Your task to perform on an android device: show emergency info Image 0: 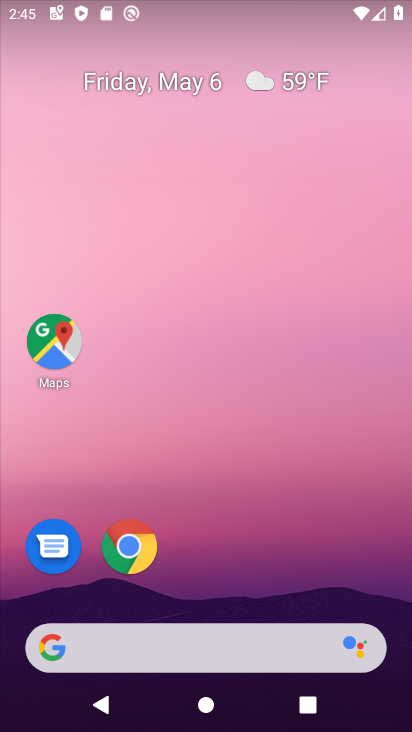
Step 0: drag from (272, 572) to (271, 166)
Your task to perform on an android device: show emergency info Image 1: 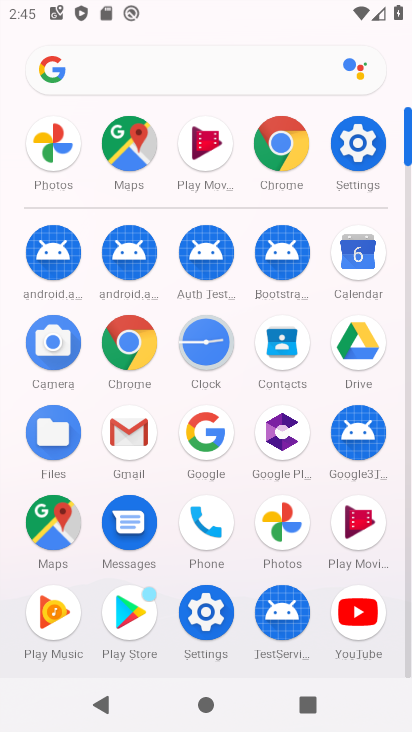
Step 1: click (359, 141)
Your task to perform on an android device: show emergency info Image 2: 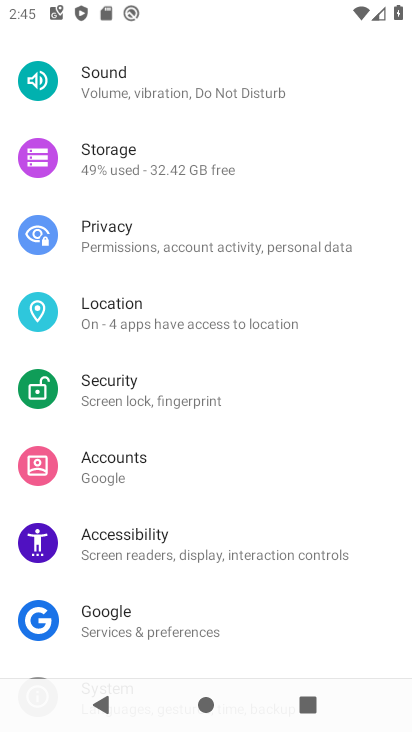
Step 2: drag from (282, 565) to (264, 236)
Your task to perform on an android device: show emergency info Image 3: 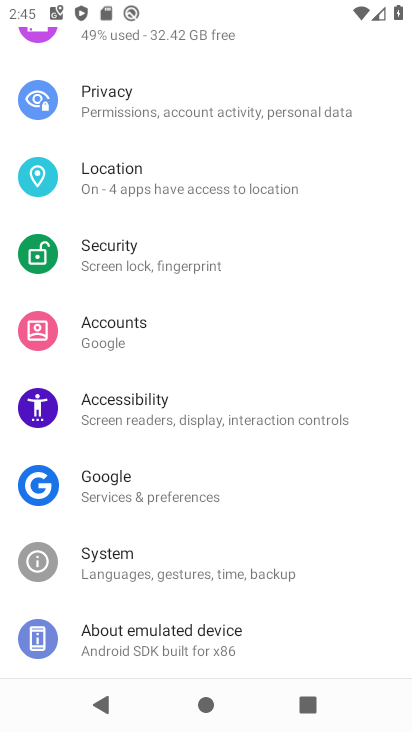
Step 3: click (224, 634)
Your task to perform on an android device: show emergency info Image 4: 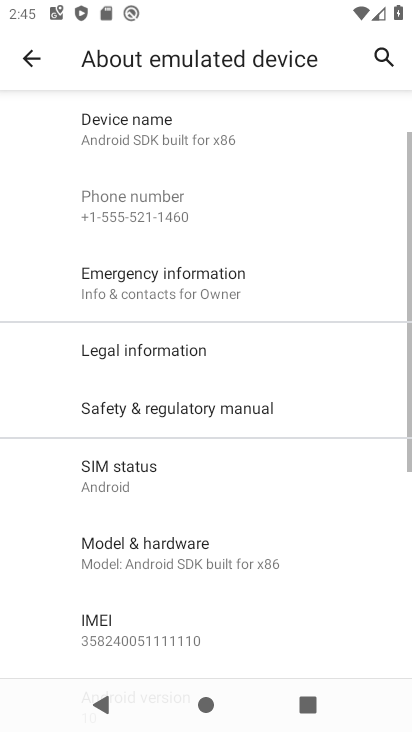
Step 4: click (208, 294)
Your task to perform on an android device: show emergency info Image 5: 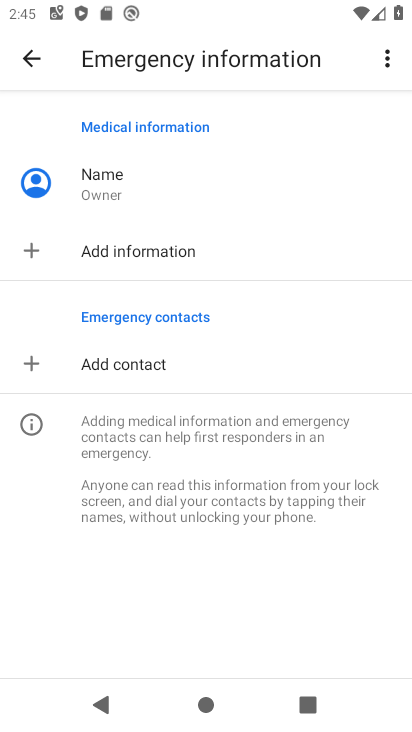
Step 5: task complete